Your task to perform on an android device: add a contact Image 0: 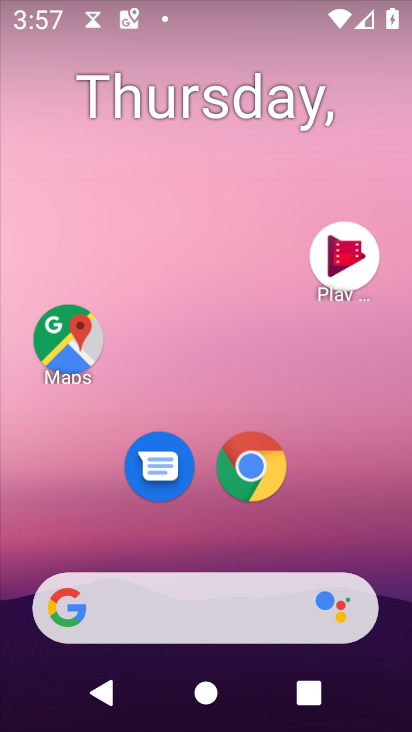
Step 0: drag from (345, 563) to (363, 3)
Your task to perform on an android device: add a contact Image 1: 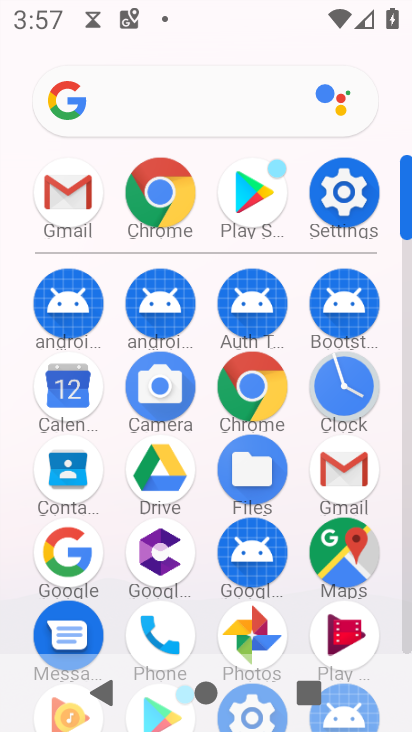
Step 1: click (61, 474)
Your task to perform on an android device: add a contact Image 2: 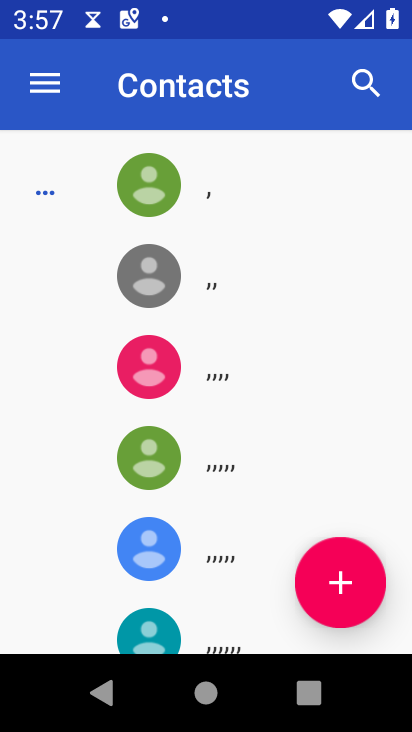
Step 2: click (362, 576)
Your task to perform on an android device: add a contact Image 3: 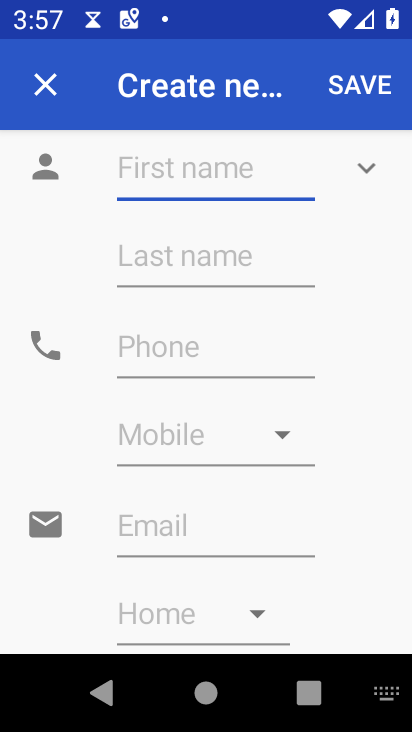
Step 3: type "hghytujin"
Your task to perform on an android device: add a contact Image 4: 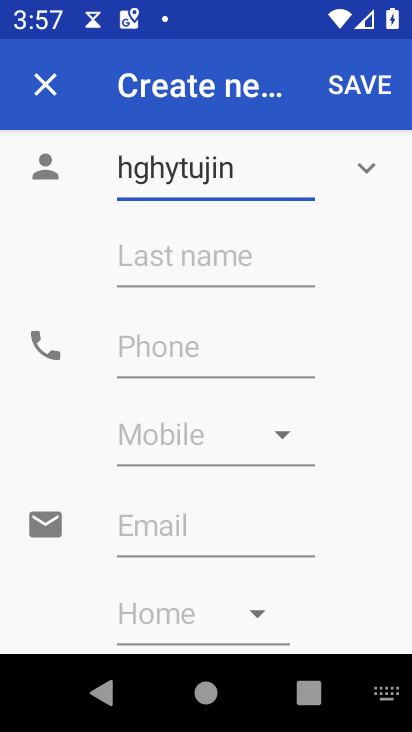
Step 4: click (229, 352)
Your task to perform on an android device: add a contact Image 5: 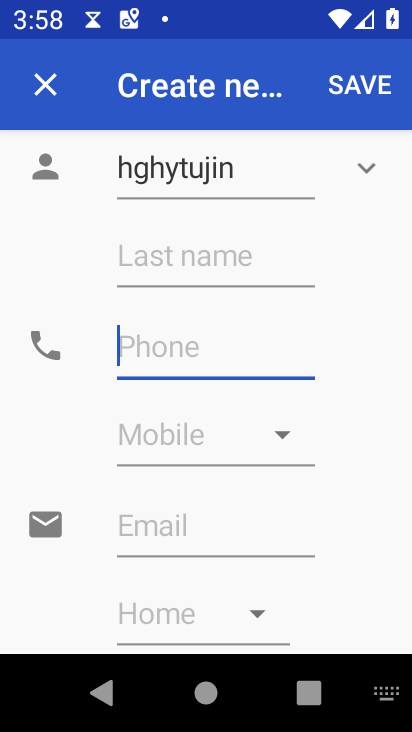
Step 5: type "9876765876"
Your task to perform on an android device: add a contact Image 6: 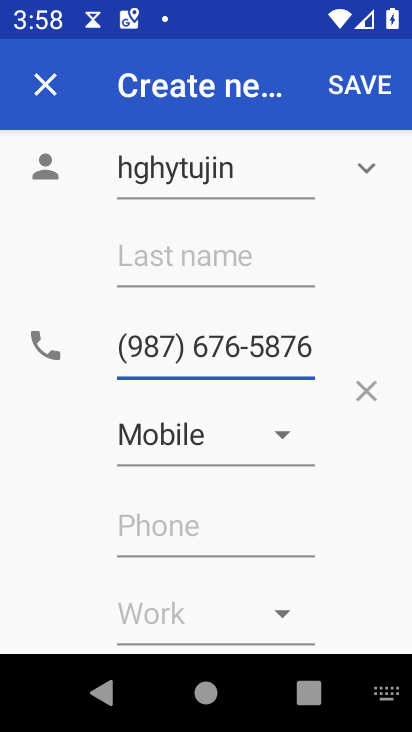
Step 6: click (366, 89)
Your task to perform on an android device: add a contact Image 7: 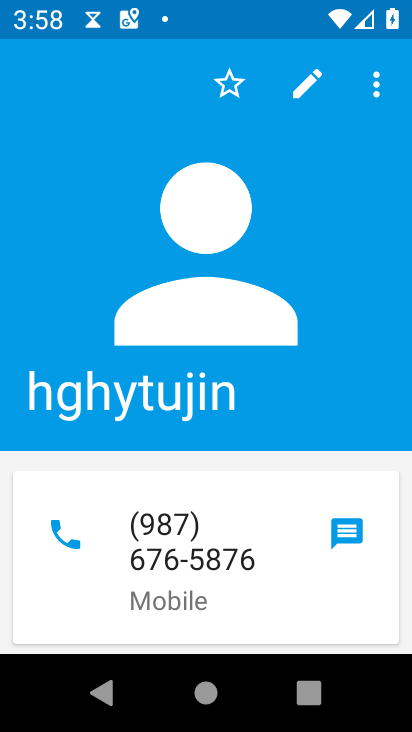
Step 7: task complete